Your task to perform on an android device: turn pop-ups on in chrome Image 0: 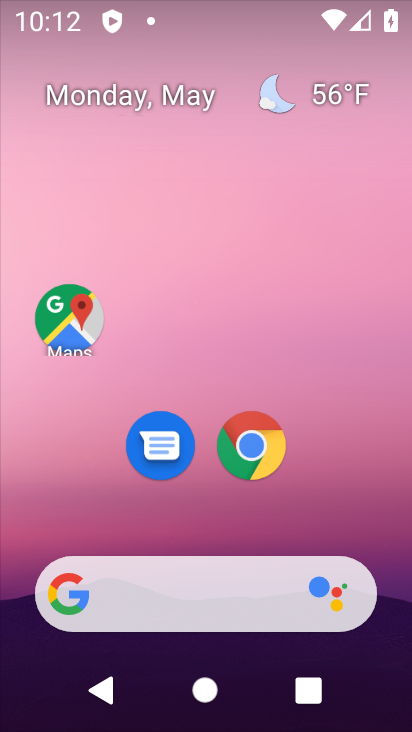
Step 0: click (245, 441)
Your task to perform on an android device: turn pop-ups on in chrome Image 1: 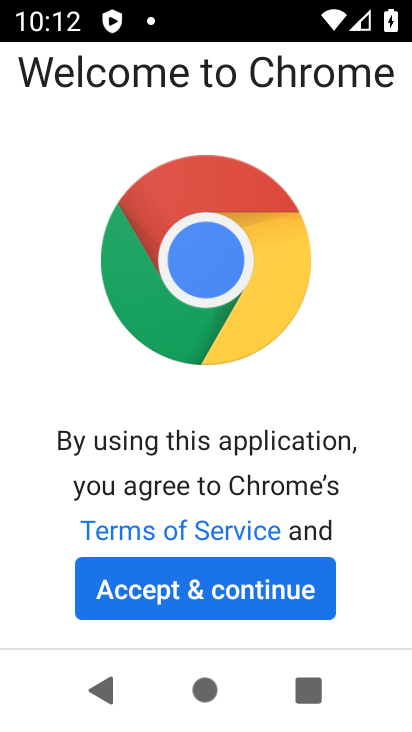
Step 1: click (262, 593)
Your task to perform on an android device: turn pop-ups on in chrome Image 2: 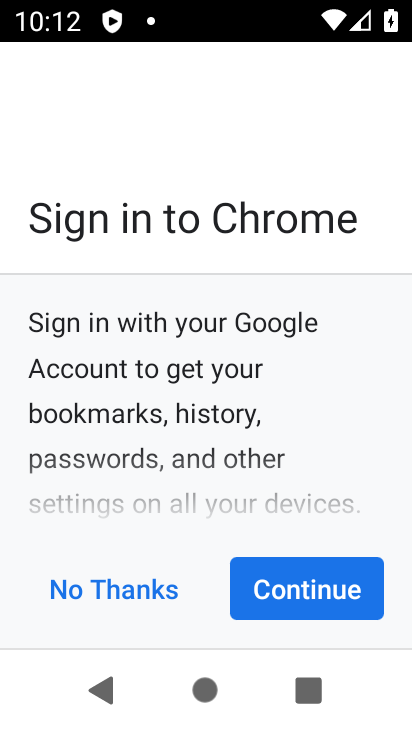
Step 2: click (262, 593)
Your task to perform on an android device: turn pop-ups on in chrome Image 3: 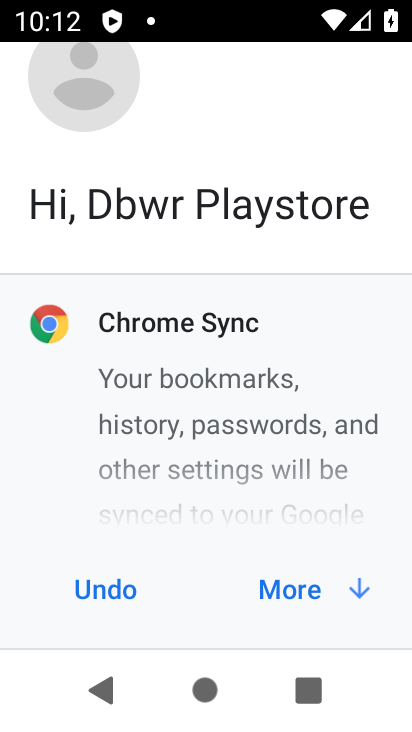
Step 3: click (281, 590)
Your task to perform on an android device: turn pop-ups on in chrome Image 4: 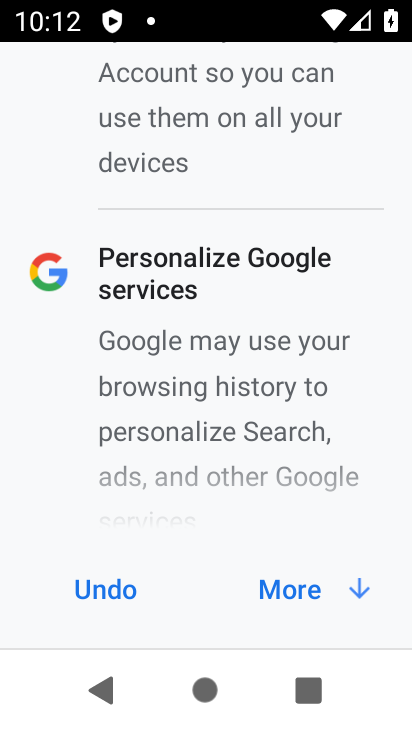
Step 4: click (281, 590)
Your task to perform on an android device: turn pop-ups on in chrome Image 5: 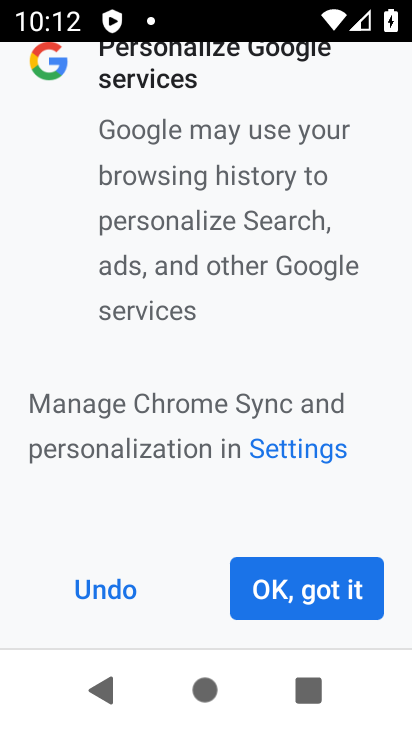
Step 5: click (281, 590)
Your task to perform on an android device: turn pop-ups on in chrome Image 6: 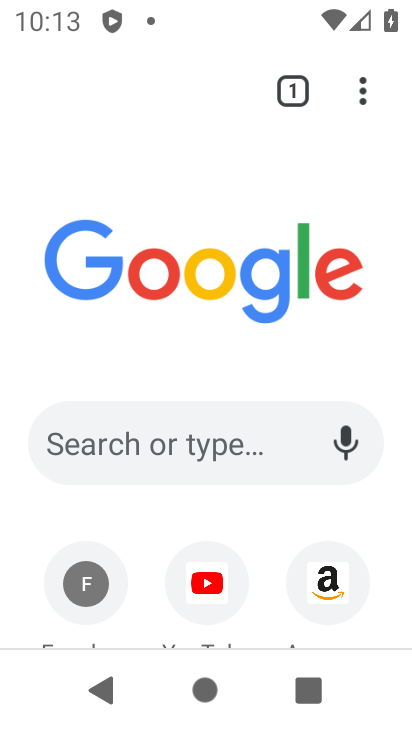
Step 6: click (359, 85)
Your task to perform on an android device: turn pop-ups on in chrome Image 7: 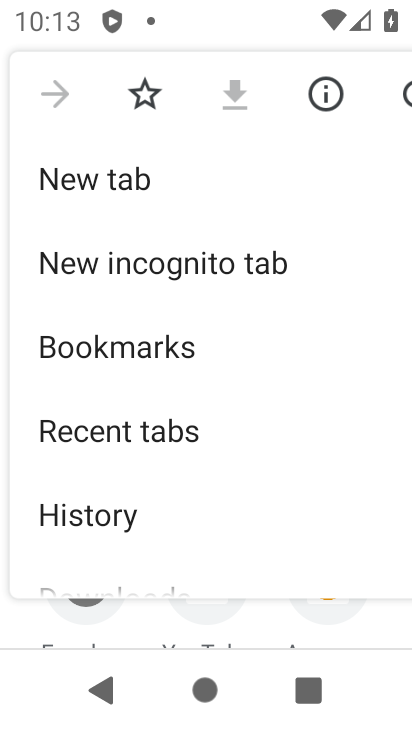
Step 7: drag from (227, 545) to (234, 223)
Your task to perform on an android device: turn pop-ups on in chrome Image 8: 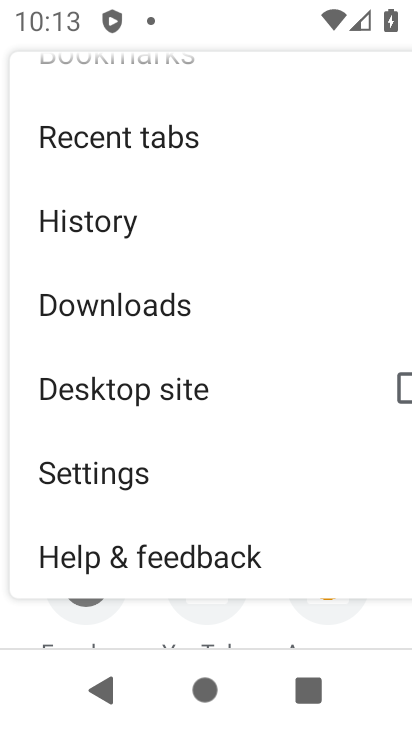
Step 8: click (103, 473)
Your task to perform on an android device: turn pop-ups on in chrome Image 9: 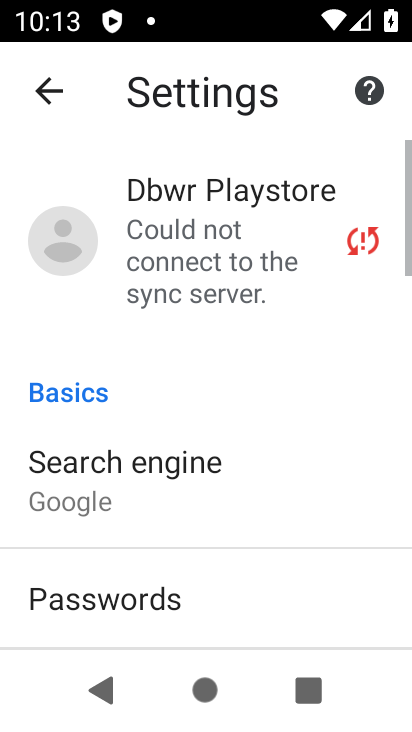
Step 9: drag from (203, 603) to (246, 264)
Your task to perform on an android device: turn pop-ups on in chrome Image 10: 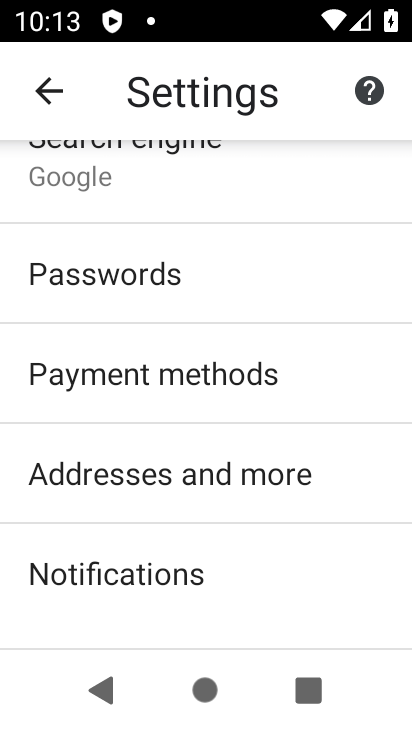
Step 10: drag from (197, 578) to (214, 300)
Your task to perform on an android device: turn pop-ups on in chrome Image 11: 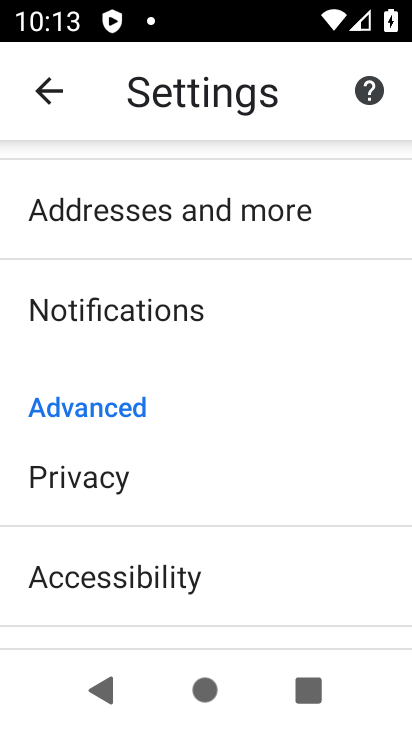
Step 11: drag from (202, 596) to (226, 356)
Your task to perform on an android device: turn pop-ups on in chrome Image 12: 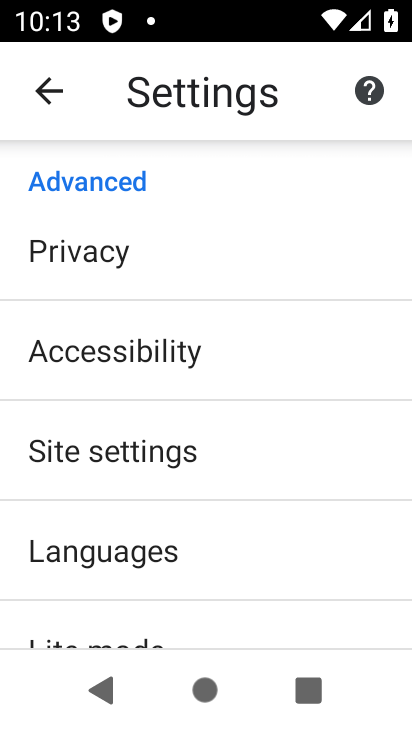
Step 12: click (137, 445)
Your task to perform on an android device: turn pop-ups on in chrome Image 13: 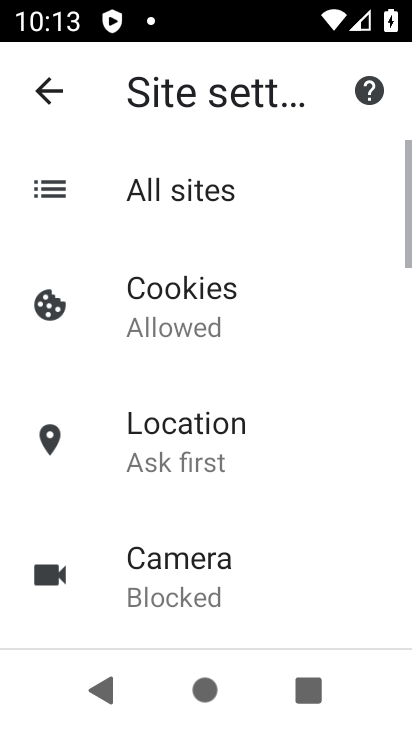
Step 13: drag from (209, 608) to (246, 318)
Your task to perform on an android device: turn pop-ups on in chrome Image 14: 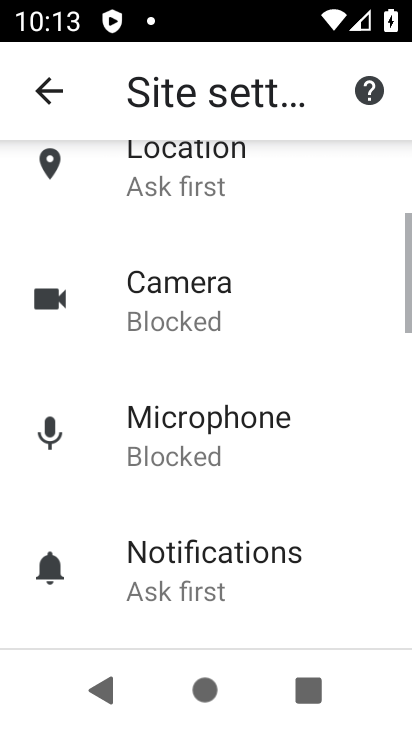
Step 14: drag from (241, 620) to (237, 315)
Your task to perform on an android device: turn pop-ups on in chrome Image 15: 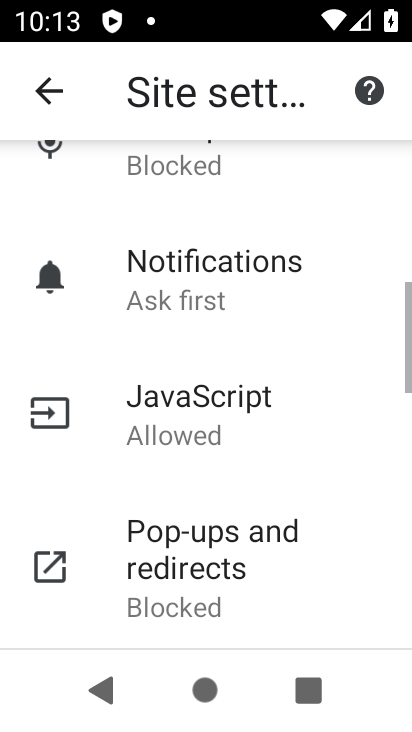
Step 15: click (214, 560)
Your task to perform on an android device: turn pop-ups on in chrome Image 16: 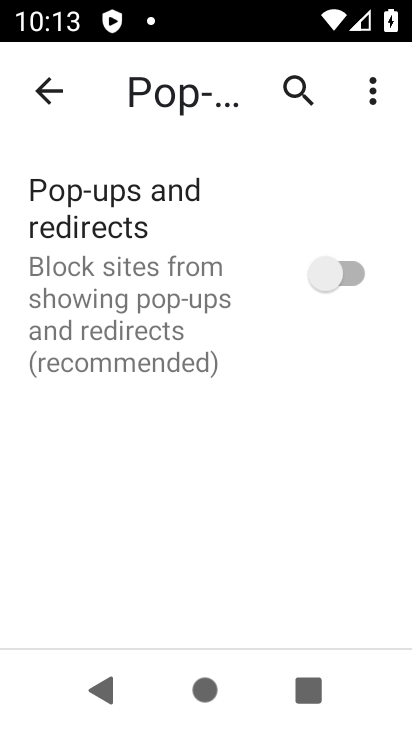
Step 16: click (348, 263)
Your task to perform on an android device: turn pop-ups on in chrome Image 17: 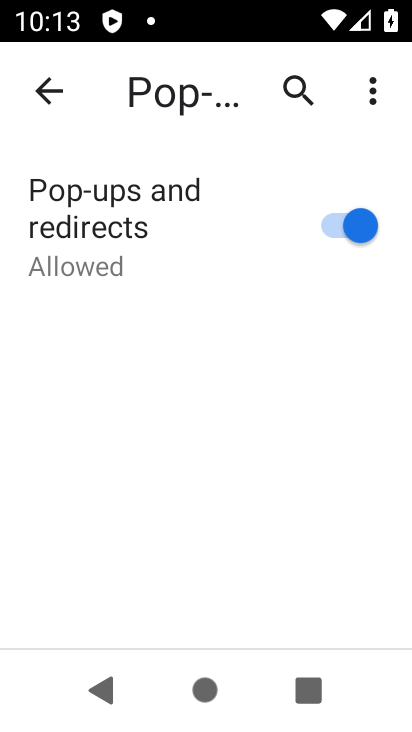
Step 17: task complete